Your task to perform on an android device: Show me productivity apps on the Play Store Image 0: 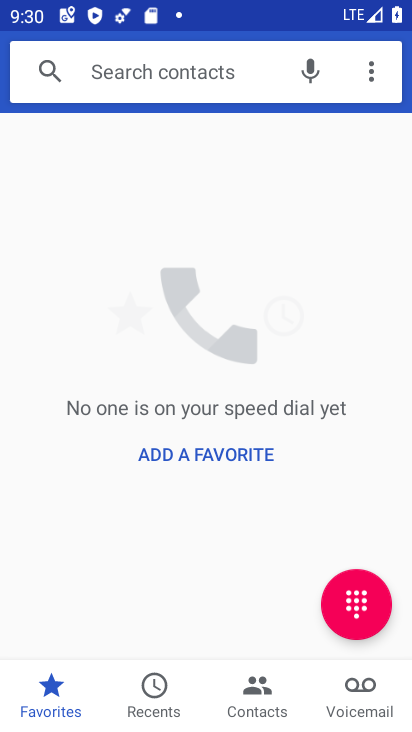
Step 0: press home button
Your task to perform on an android device: Show me productivity apps on the Play Store Image 1: 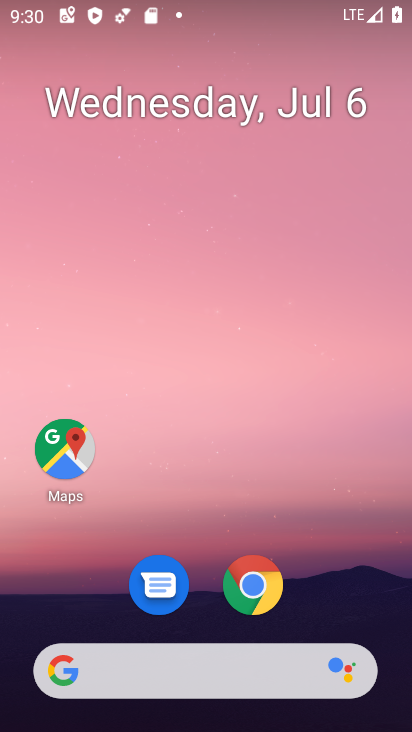
Step 1: drag from (209, 538) to (269, 0)
Your task to perform on an android device: Show me productivity apps on the Play Store Image 2: 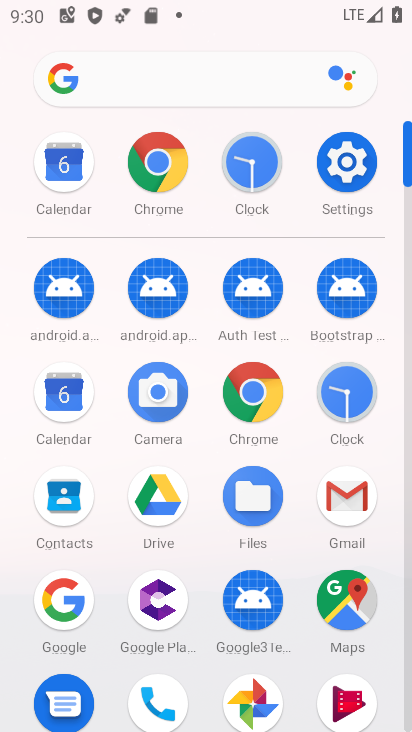
Step 2: drag from (200, 641) to (200, 179)
Your task to perform on an android device: Show me productivity apps on the Play Store Image 3: 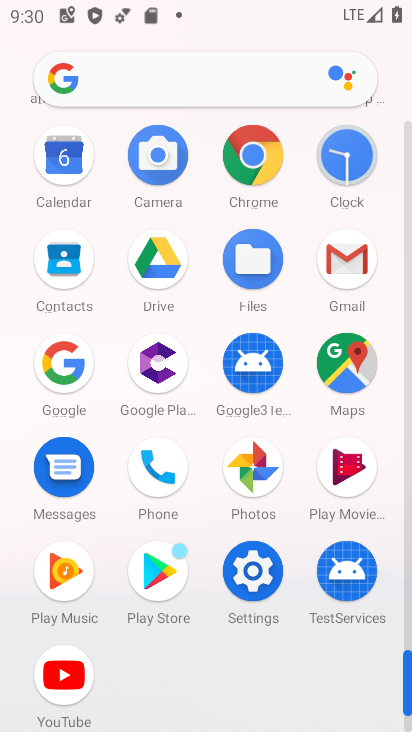
Step 3: click (167, 585)
Your task to perform on an android device: Show me productivity apps on the Play Store Image 4: 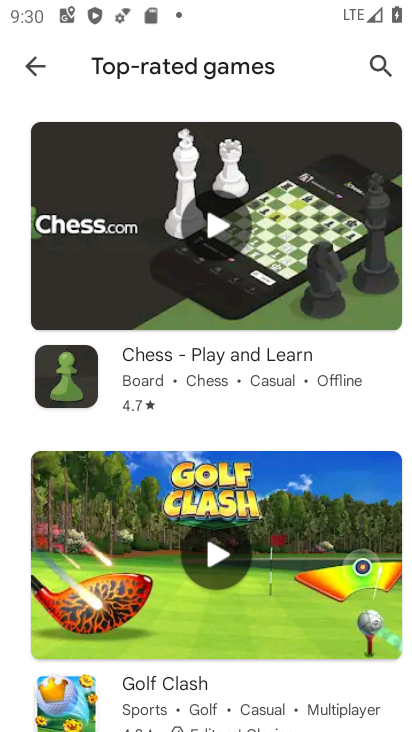
Step 4: click (33, 54)
Your task to perform on an android device: Show me productivity apps on the Play Store Image 5: 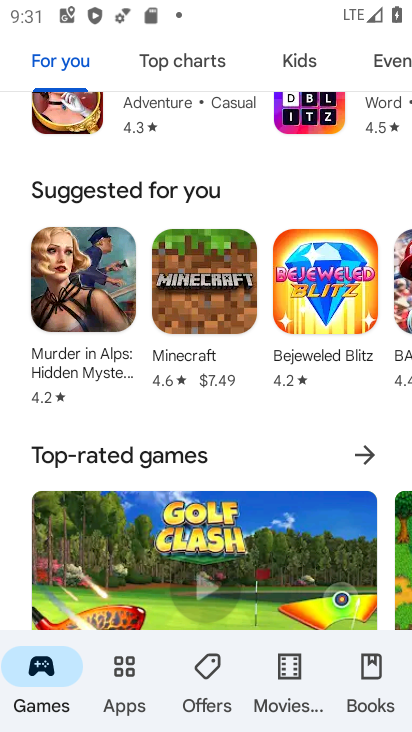
Step 5: click (122, 671)
Your task to perform on an android device: Show me productivity apps on the Play Store Image 6: 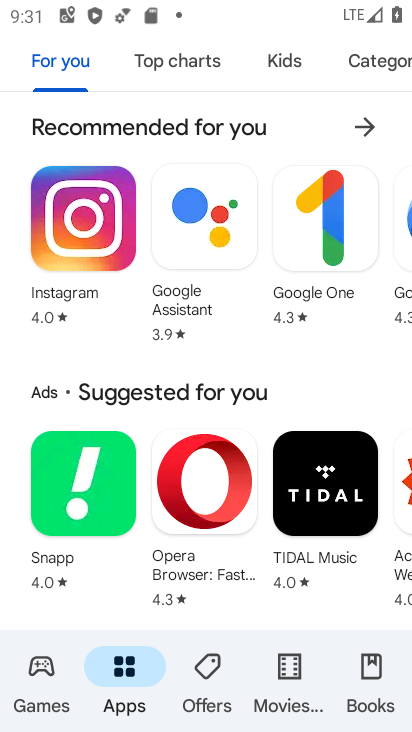
Step 6: click (370, 58)
Your task to perform on an android device: Show me productivity apps on the Play Store Image 7: 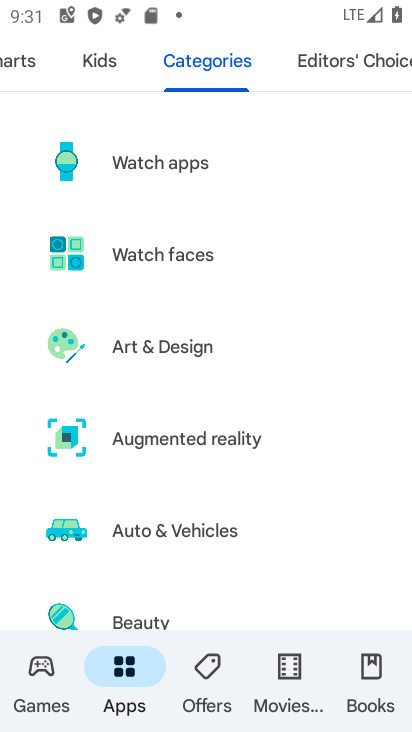
Step 7: drag from (267, 489) to (295, 122)
Your task to perform on an android device: Show me productivity apps on the Play Store Image 8: 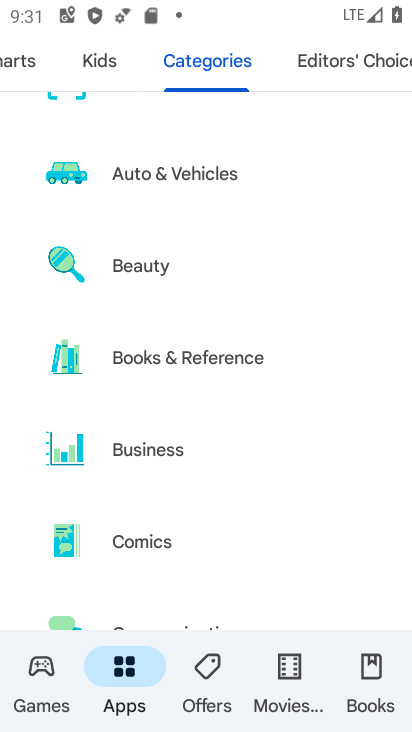
Step 8: drag from (198, 509) to (205, 127)
Your task to perform on an android device: Show me productivity apps on the Play Store Image 9: 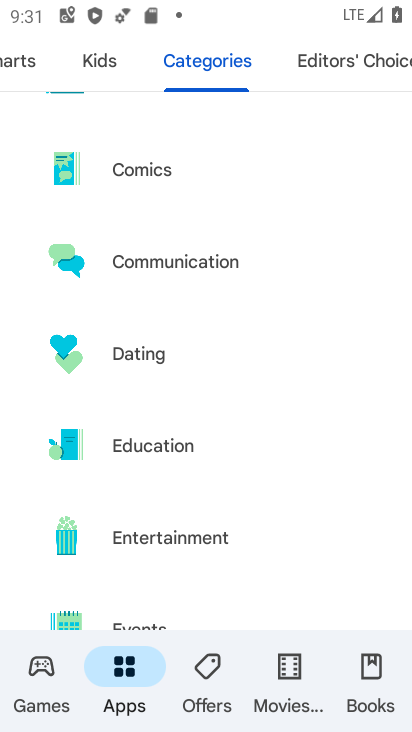
Step 9: drag from (214, 549) to (211, 137)
Your task to perform on an android device: Show me productivity apps on the Play Store Image 10: 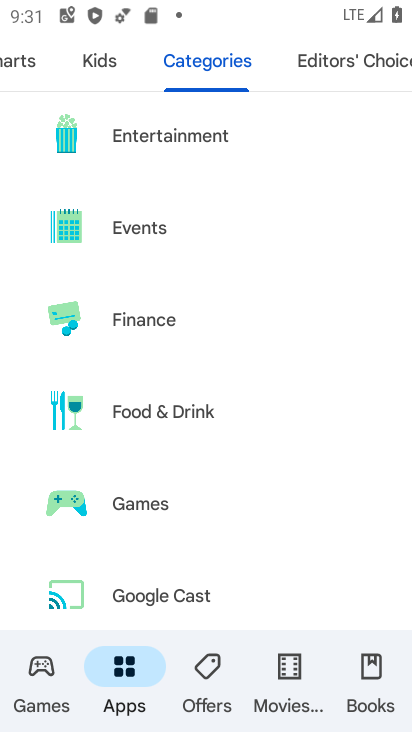
Step 10: drag from (241, 503) to (263, 128)
Your task to perform on an android device: Show me productivity apps on the Play Store Image 11: 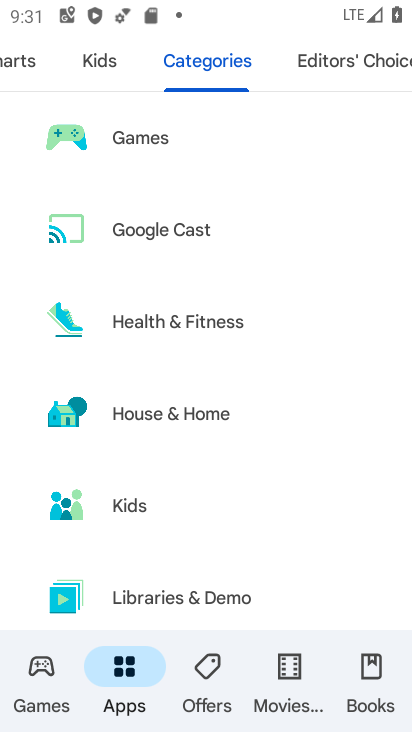
Step 11: drag from (241, 528) to (250, 168)
Your task to perform on an android device: Show me productivity apps on the Play Store Image 12: 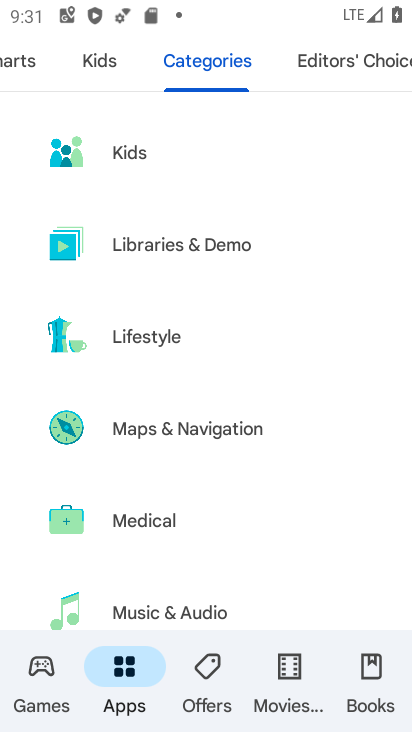
Step 12: drag from (217, 471) to (231, 163)
Your task to perform on an android device: Show me productivity apps on the Play Store Image 13: 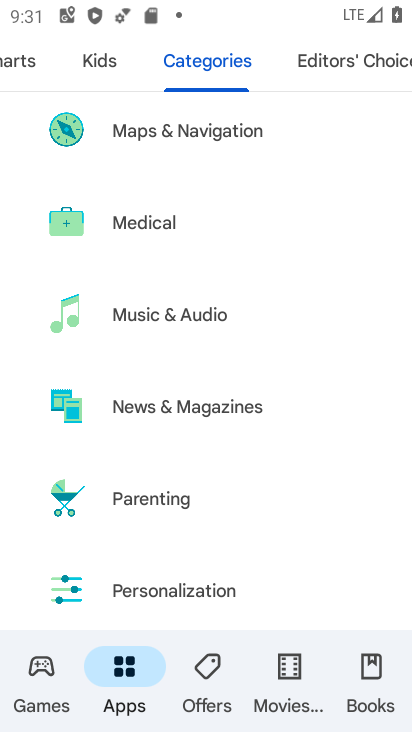
Step 13: drag from (242, 457) to (252, 132)
Your task to perform on an android device: Show me productivity apps on the Play Store Image 14: 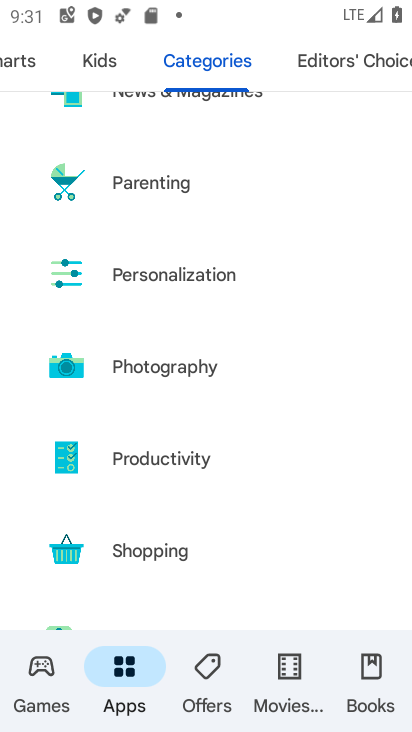
Step 14: click (176, 459)
Your task to perform on an android device: Show me productivity apps on the Play Store Image 15: 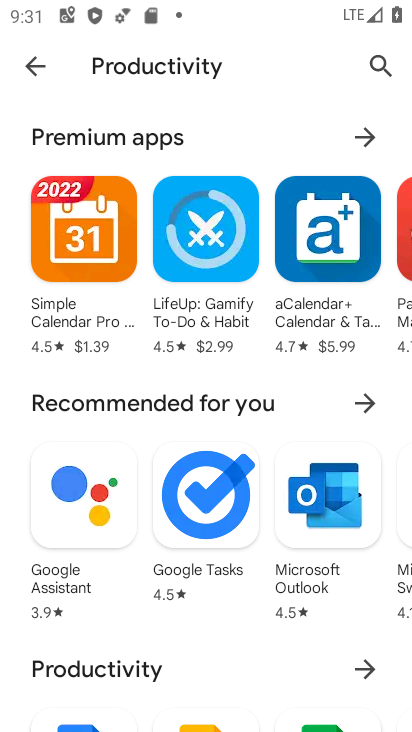
Step 15: click (370, 665)
Your task to perform on an android device: Show me productivity apps on the Play Store Image 16: 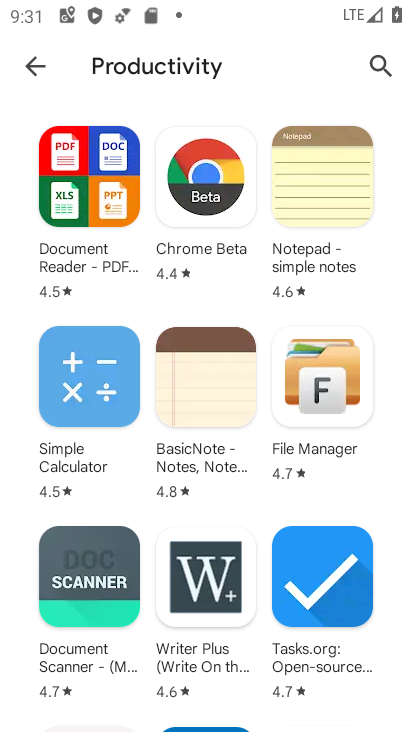
Step 16: task complete